Your task to perform on an android device: change the clock style Image 0: 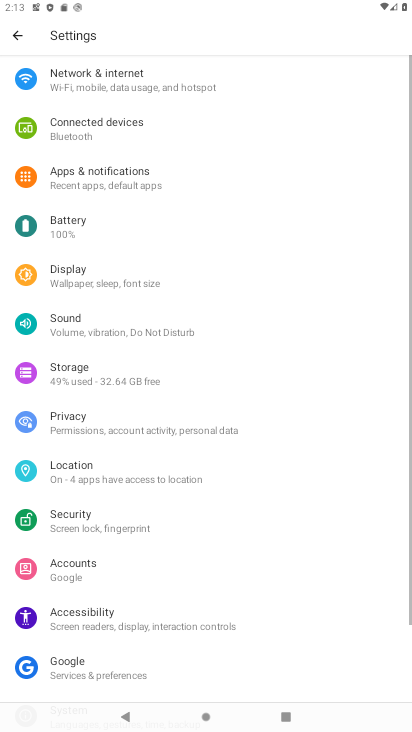
Step 0: press home button
Your task to perform on an android device: change the clock style Image 1: 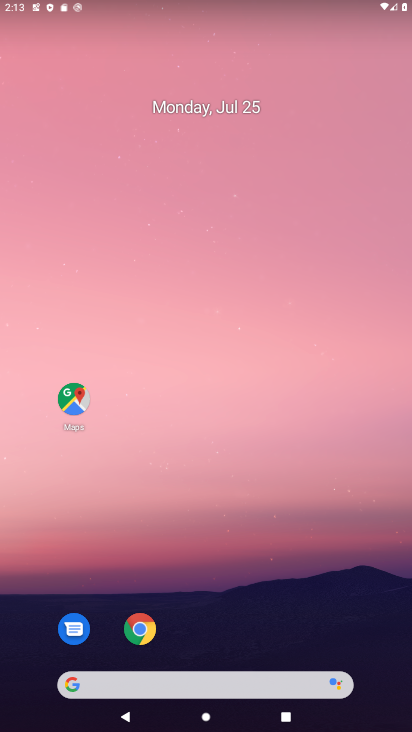
Step 1: drag from (122, 494) to (247, 95)
Your task to perform on an android device: change the clock style Image 2: 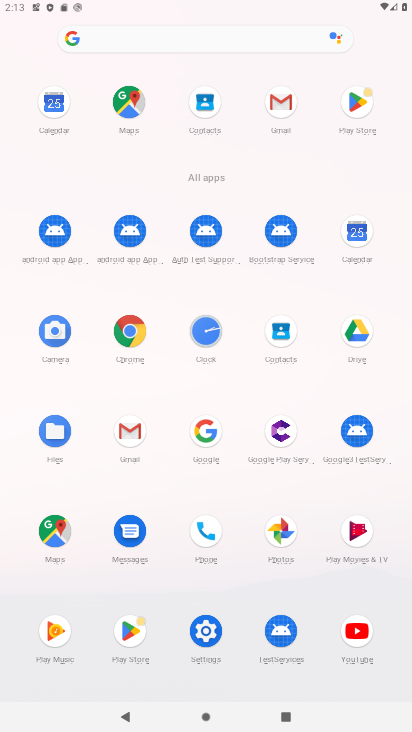
Step 2: click (221, 333)
Your task to perform on an android device: change the clock style Image 3: 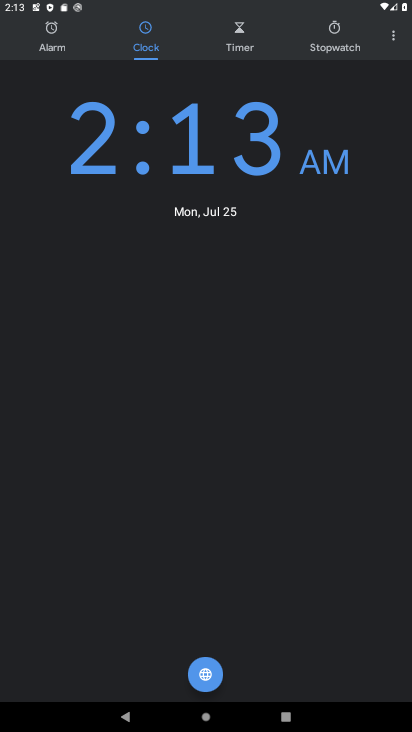
Step 3: click (398, 34)
Your task to perform on an android device: change the clock style Image 4: 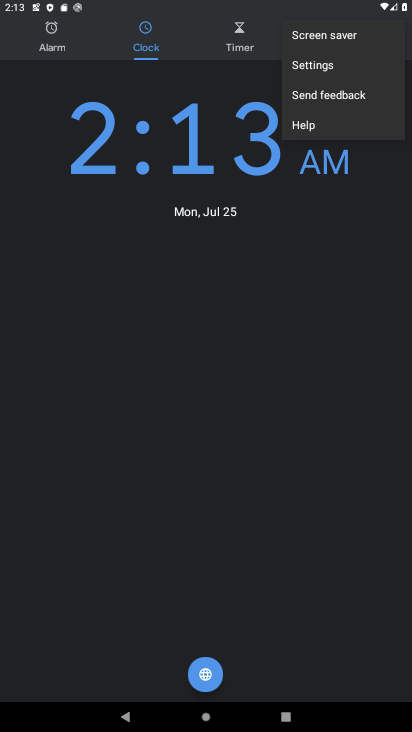
Step 4: click (314, 74)
Your task to perform on an android device: change the clock style Image 5: 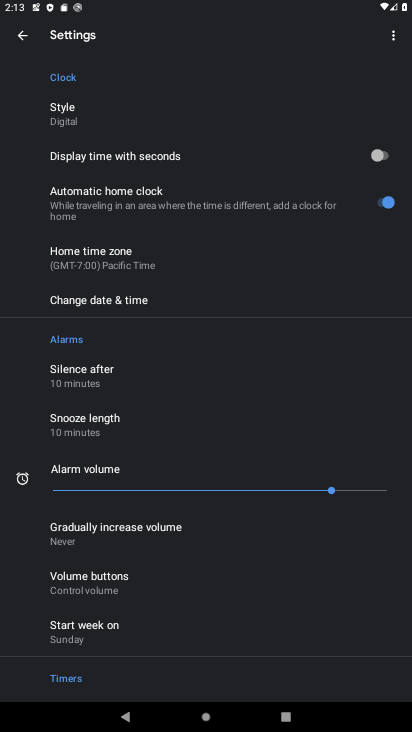
Step 5: click (81, 117)
Your task to perform on an android device: change the clock style Image 6: 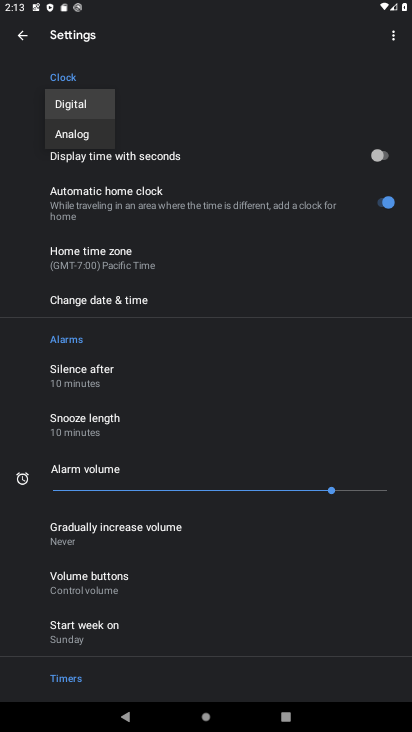
Step 6: click (77, 138)
Your task to perform on an android device: change the clock style Image 7: 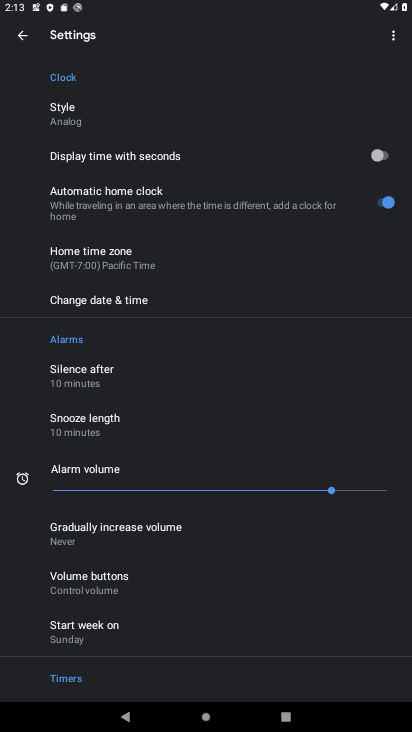
Step 7: task complete